Your task to perform on an android device: toggle priority inbox in the gmail app Image 0: 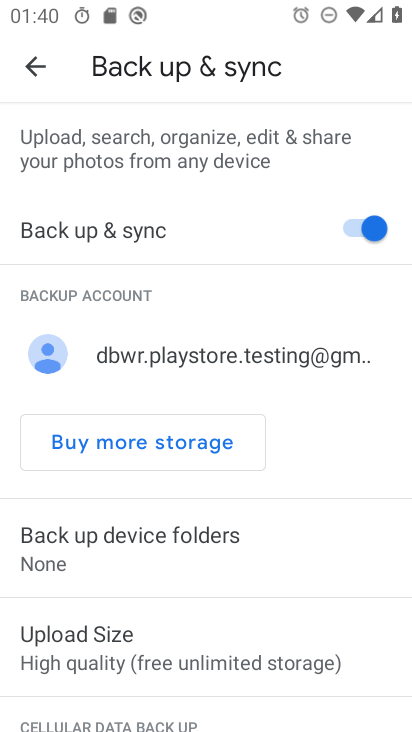
Step 0: press home button
Your task to perform on an android device: toggle priority inbox in the gmail app Image 1: 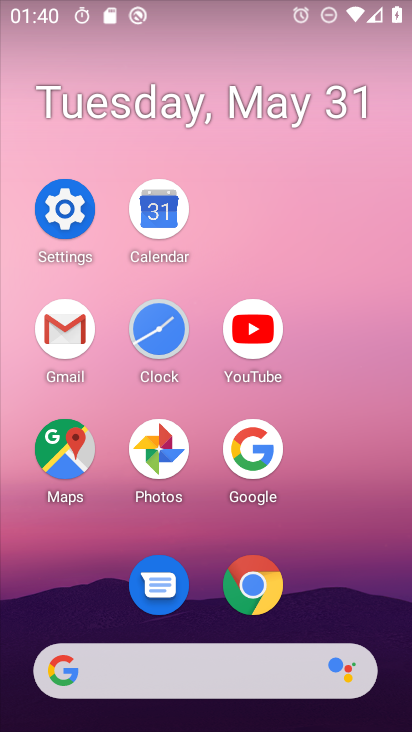
Step 1: click (79, 329)
Your task to perform on an android device: toggle priority inbox in the gmail app Image 2: 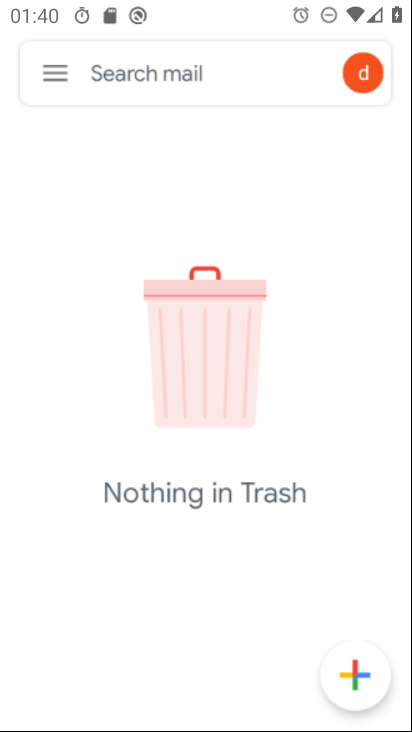
Step 2: click (50, 93)
Your task to perform on an android device: toggle priority inbox in the gmail app Image 3: 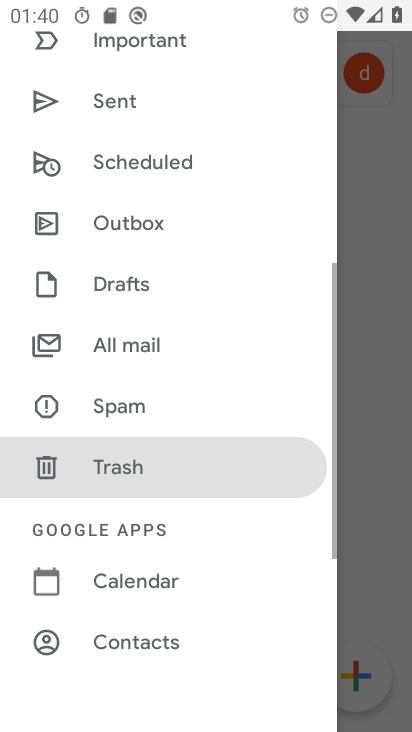
Step 3: drag from (162, 594) to (120, 140)
Your task to perform on an android device: toggle priority inbox in the gmail app Image 4: 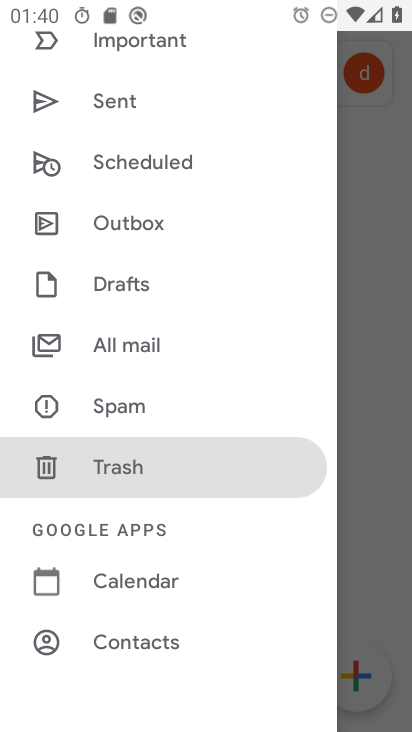
Step 4: drag from (173, 552) to (225, 164)
Your task to perform on an android device: toggle priority inbox in the gmail app Image 5: 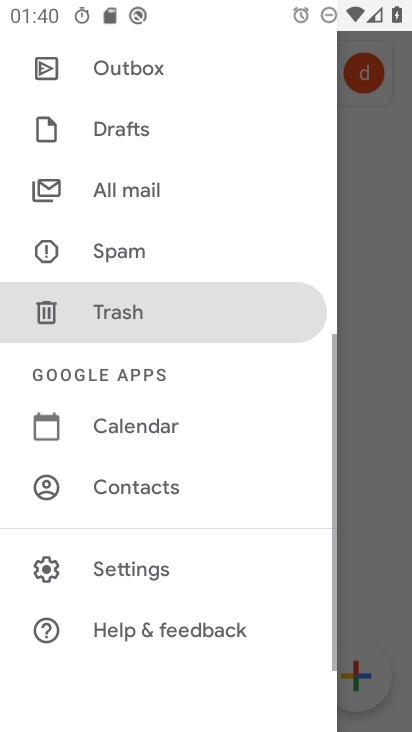
Step 5: click (176, 568)
Your task to perform on an android device: toggle priority inbox in the gmail app Image 6: 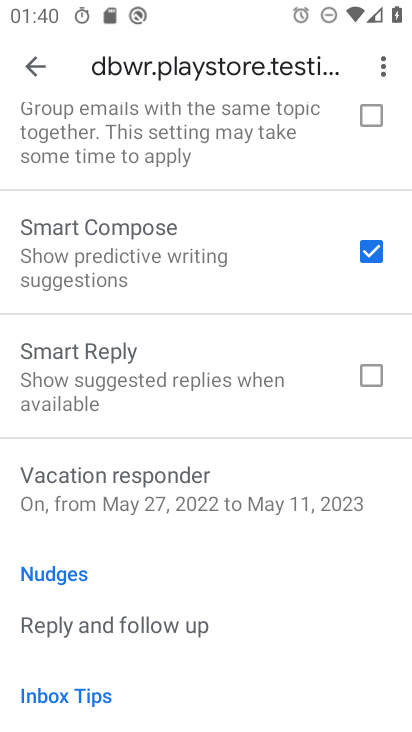
Step 6: drag from (184, 538) to (228, 193)
Your task to perform on an android device: toggle priority inbox in the gmail app Image 7: 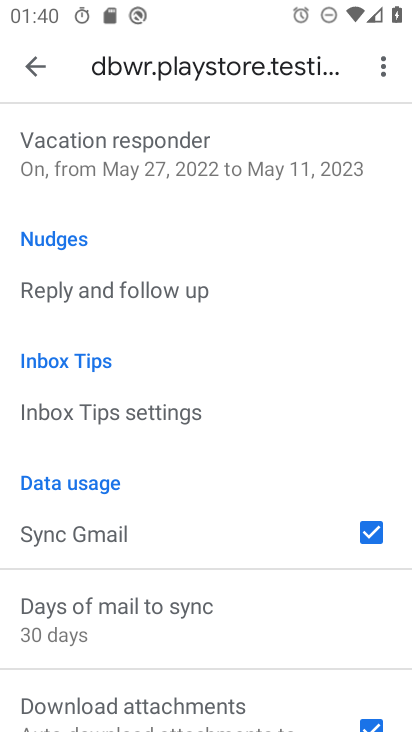
Step 7: drag from (263, 352) to (273, 664)
Your task to perform on an android device: toggle priority inbox in the gmail app Image 8: 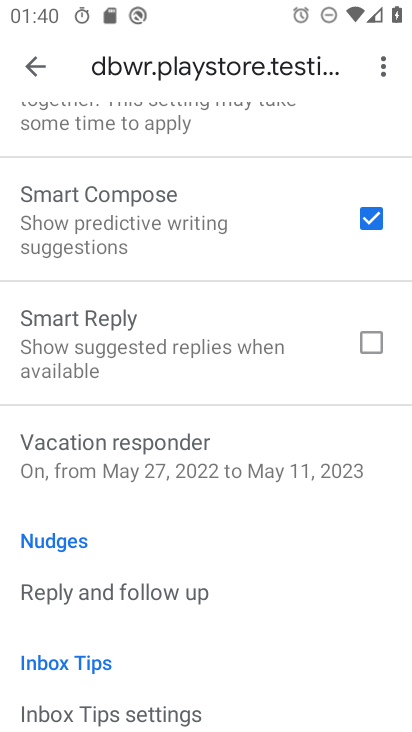
Step 8: drag from (244, 175) to (333, 656)
Your task to perform on an android device: toggle priority inbox in the gmail app Image 9: 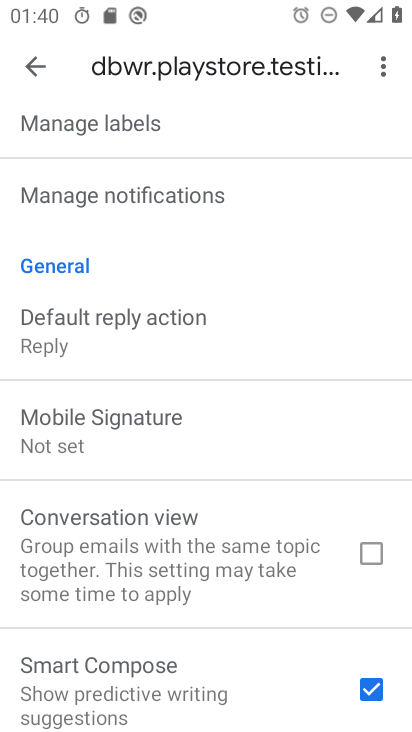
Step 9: drag from (253, 129) to (292, 701)
Your task to perform on an android device: toggle priority inbox in the gmail app Image 10: 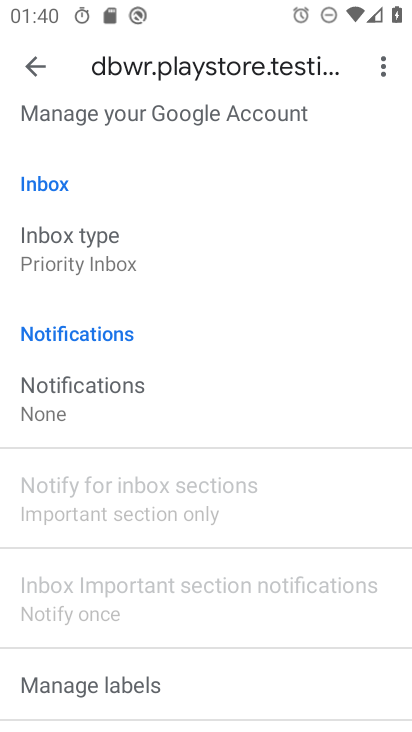
Step 10: click (142, 246)
Your task to perform on an android device: toggle priority inbox in the gmail app Image 11: 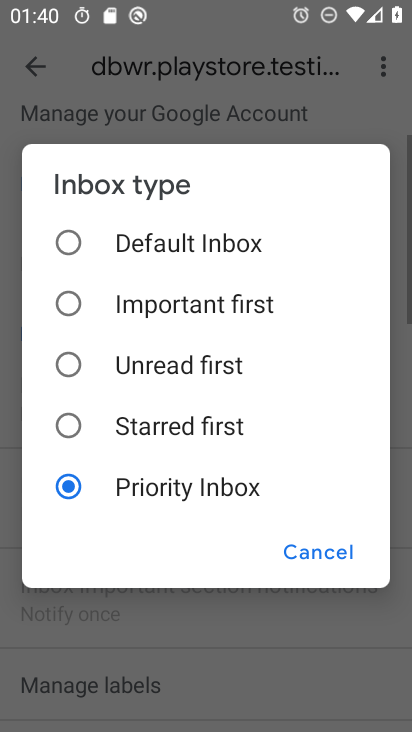
Step 11: click (157, 238)
Your task to perform on an android device: toggle priority inbox in the gmail app Image 12: 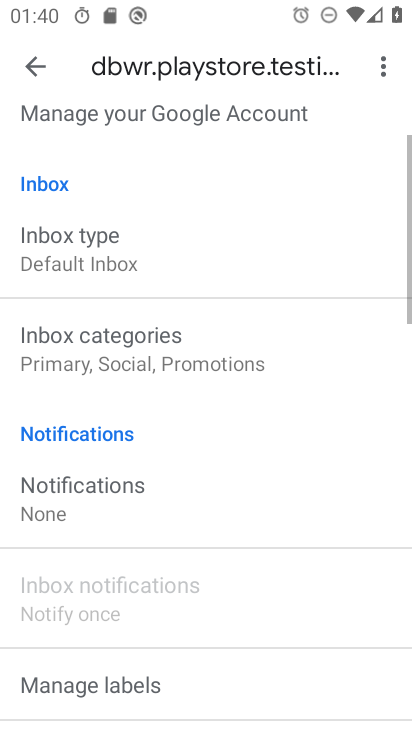
Step 12: task complete